Your task to perform on an android device: Open Google Chrome and open the bookmarks view Image 0: 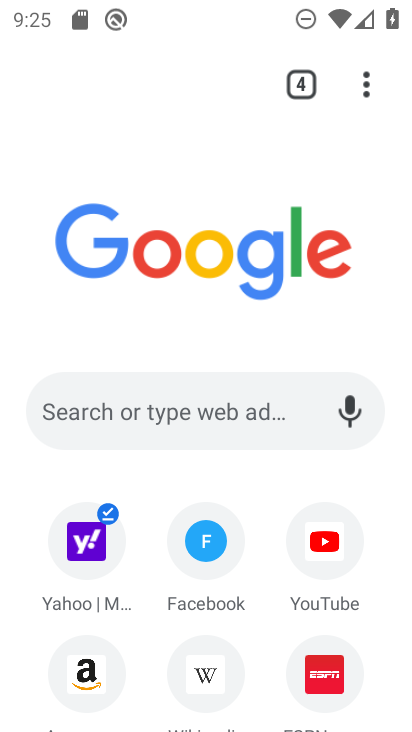
Step 0: click (366, 84)
Your task to perform on an android device: Open Google Chrome and open the bookmarks view Image 1: 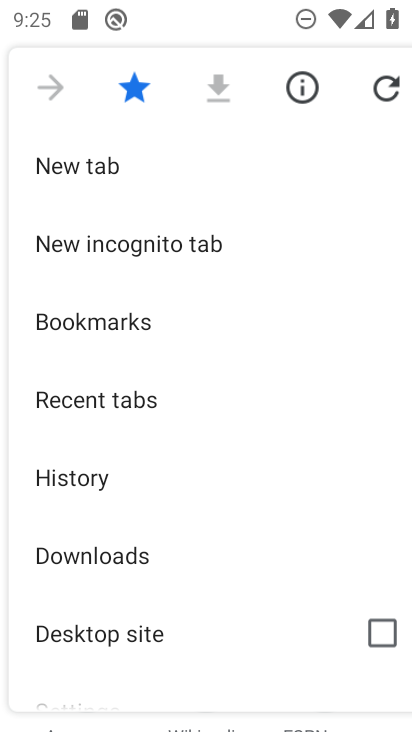
Step 1: click (124, 317)
Your task to perform on an android device: Open Google Chrome and open the bookmarks view Image 2: 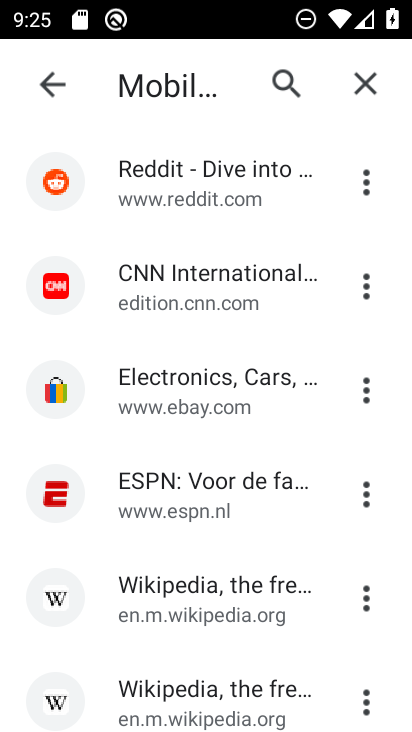
Step 2: click (366, 175)
Your task to perform on an android device: Open Google Chrome and open the bookmarks view Image 3: 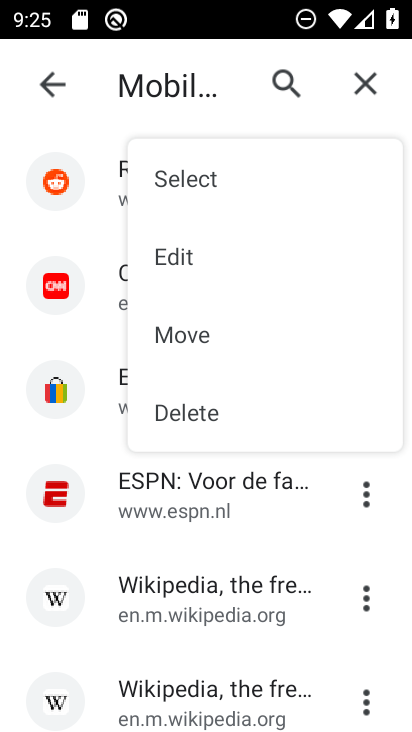
Step 3: click (170, 253)
Your task to perform on an android device: Open Google Chrome and open the bookmarks view Image 4: 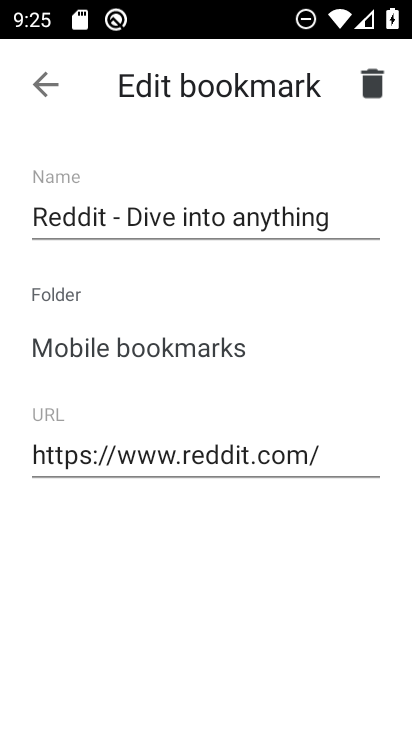
Step 4: task complete